Your task to perform on an android device: Check the weather Image 0: 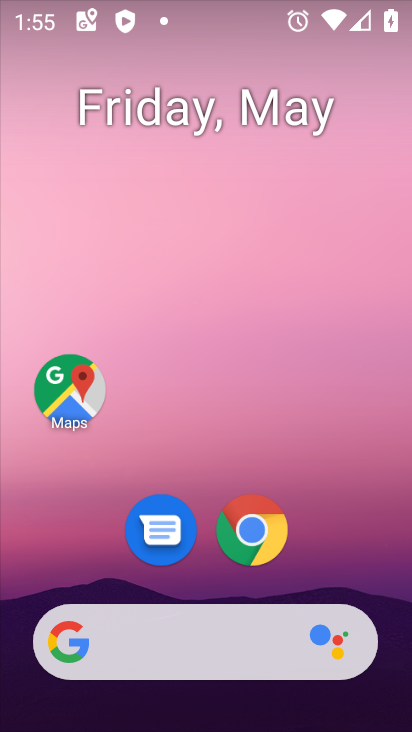
Step 0: click (166, 633)
Your task to perform on an android device: Check the weather Image 1: 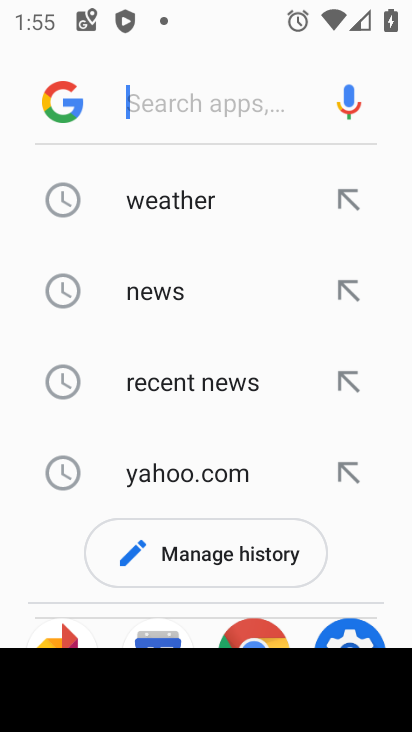
Step 1: type "weather"
Your task to perform on an android device: Check the weather Image 2: 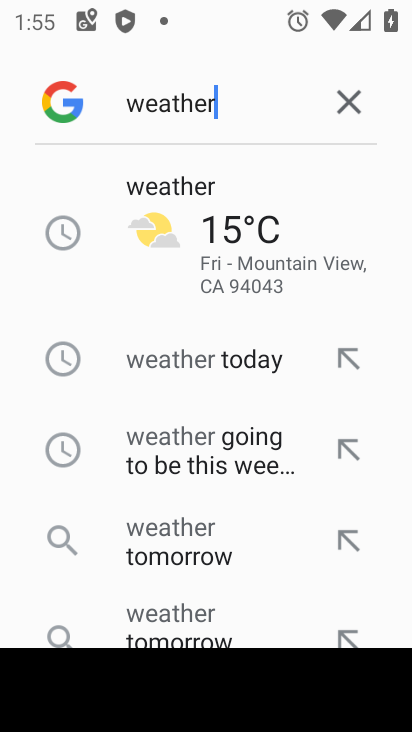
Step 2: click (186, 242)
Your task to perform on an android device: Check the weather Image 3: 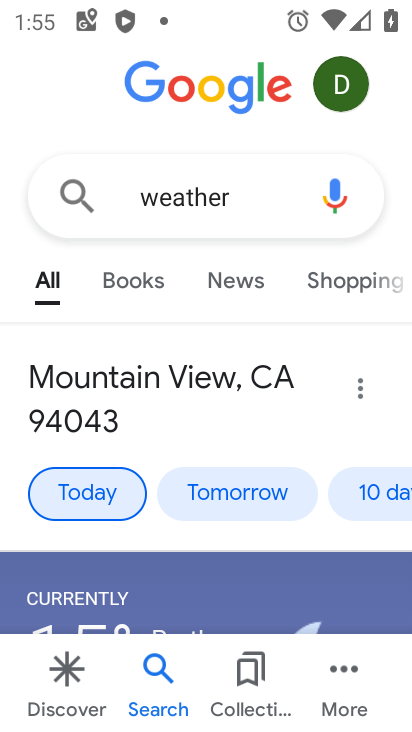
Step 3: task complete